Your task to perform on an android device: set the timer Image 0: 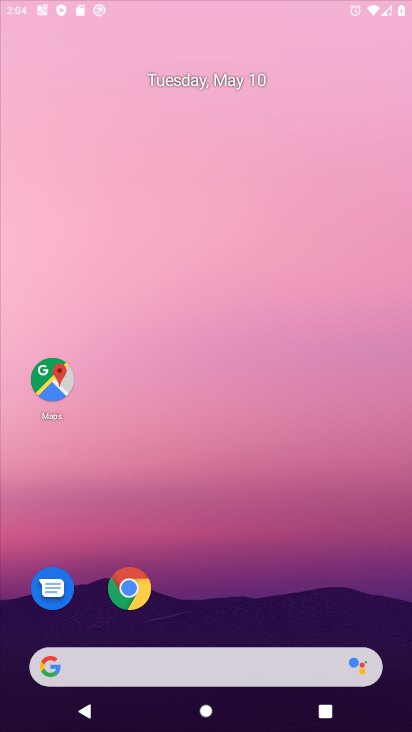
Step 0: drag from (237, 526) to (240, 261)
Your task to perform on an android device: set the timer Image 1: 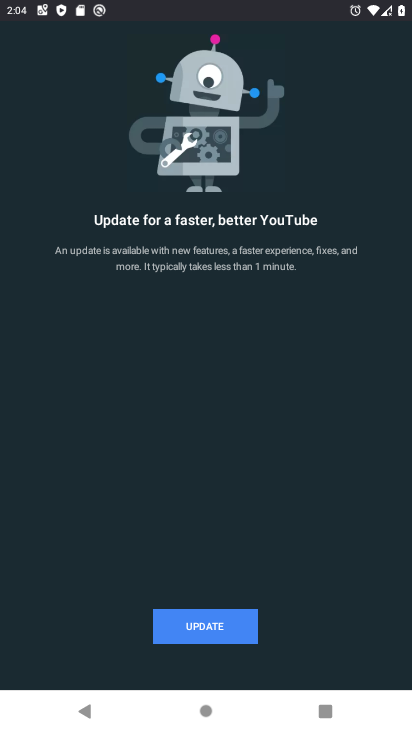
Step 1: press home button
Your task to perform on an android device: set the timer Image 2: 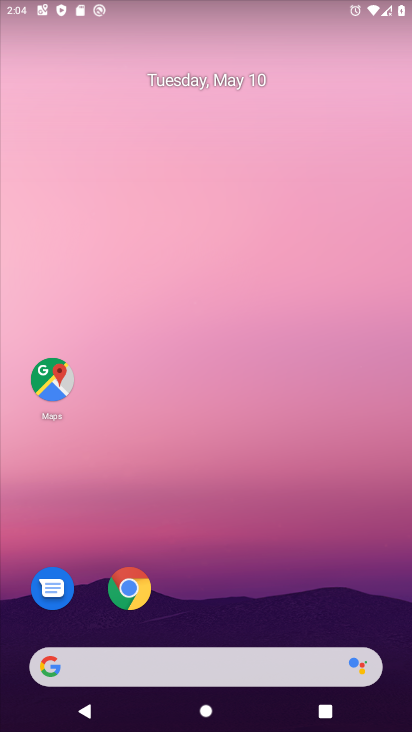
Step 2: drag from (270, 616) to (309, 230)
Your task to perform on an android device: set the timer Image 3: 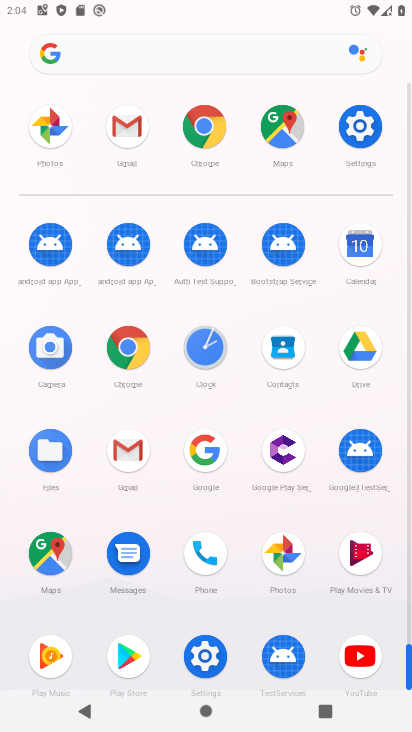
Step 3: click (209, 337)
Your task to perform on an android device: set the timer Image 4: 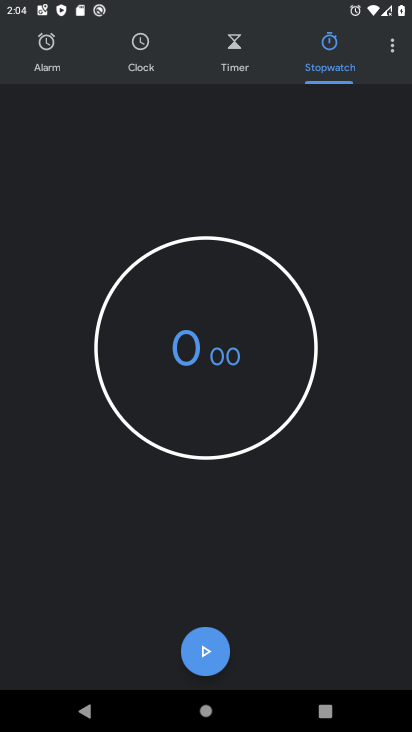
Step 4: click (246, 54)
Your task to perform on an android device: set the timer Image 5: 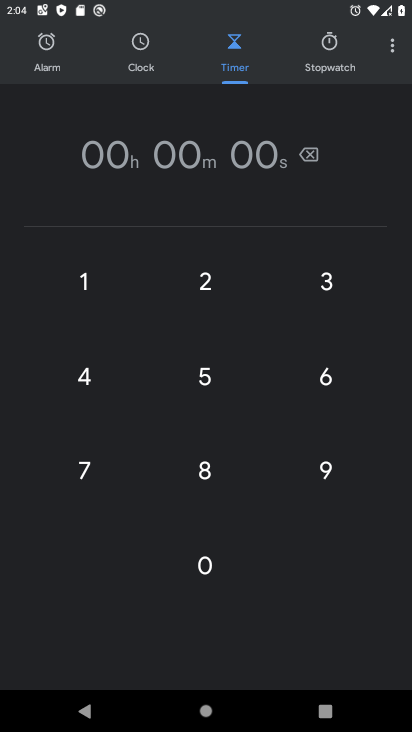
Step 5: click (106, 156)
Your task to perform on an android device: set the timer Image 6: 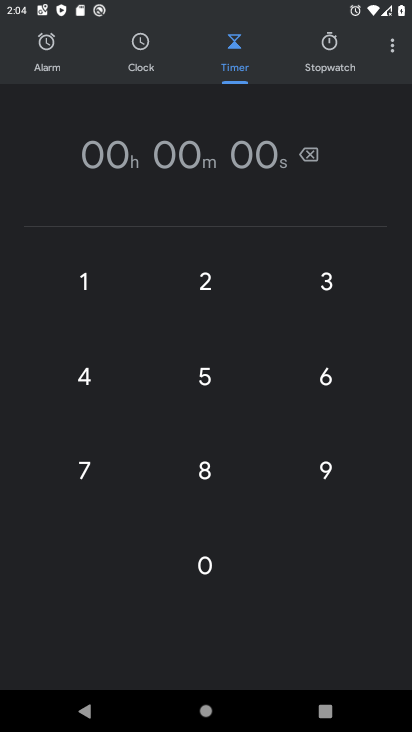
Step 6: type "009090"
Your task to perform on an android device: set the timer Image 7: 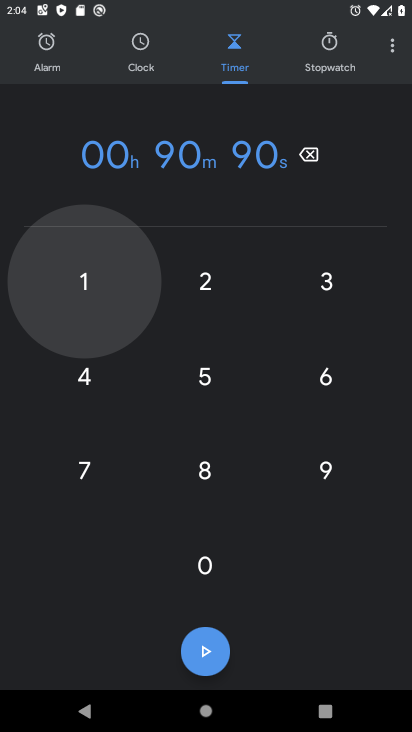
Step 7: type "77"
Your task to perform on an android device: set the timer Image 8: 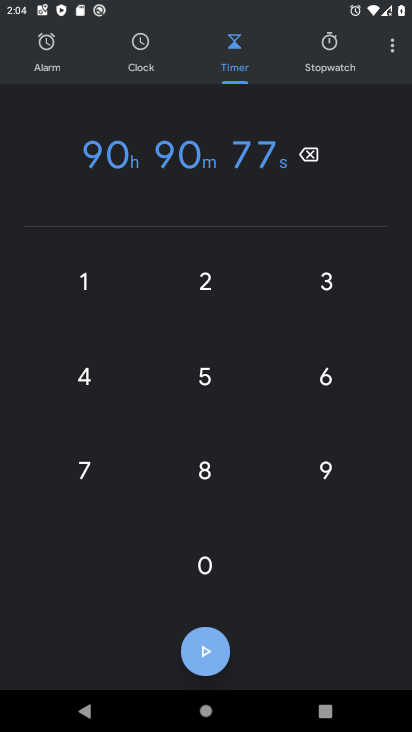
Step 8: click (188, 648)
Your task to perform on an android device: set the timer Image 9: 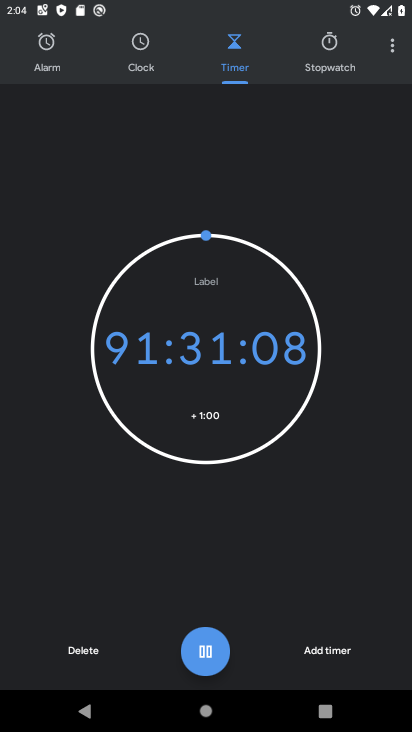
Step 9: task complete